Your task to perform on an android device: Go to eBay Image 0: 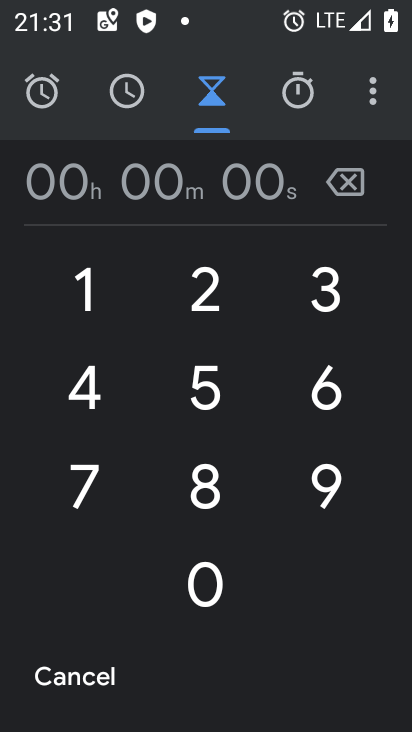
Step 0: press home button
Your task to perform on an android device: Go to eBay Image 1: 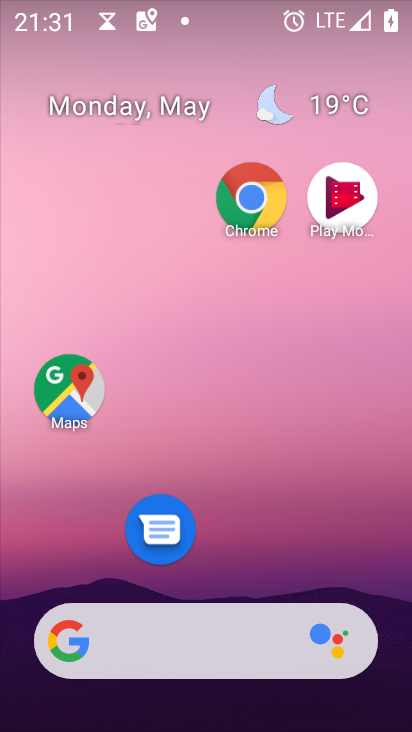
Step 1: click (261, 209)
Your task to perform on an android device: Go to eBay Image 2: 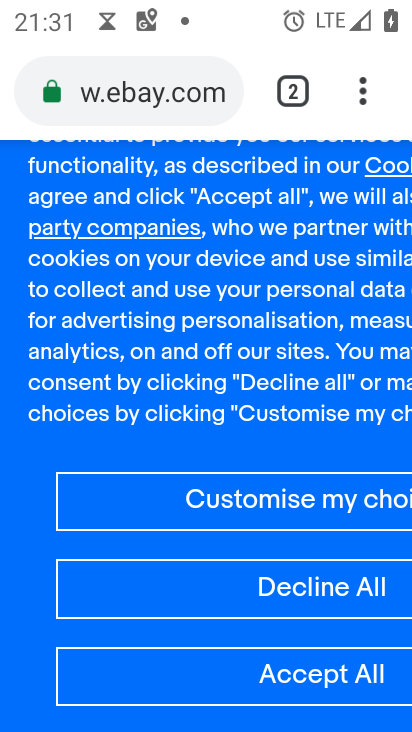
Step 2: task complete